Your task to perform on an android device: Search for Italian restaurants on Maps Image 0: 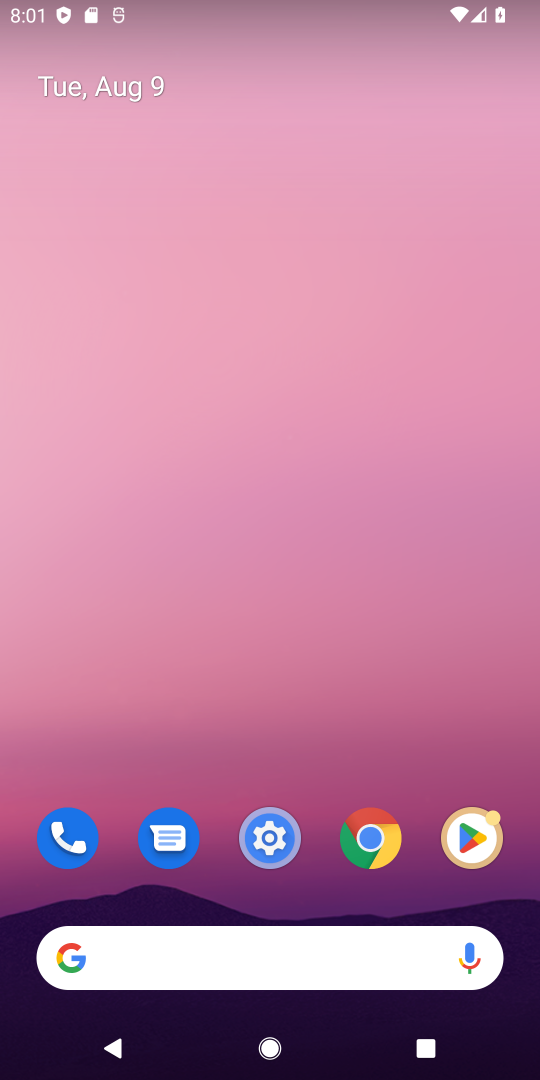
Step 0: drag from (331, 899) to (285, 85)
Your task to perform on an android device: Search for Italian restaurants on Maps Image 1: 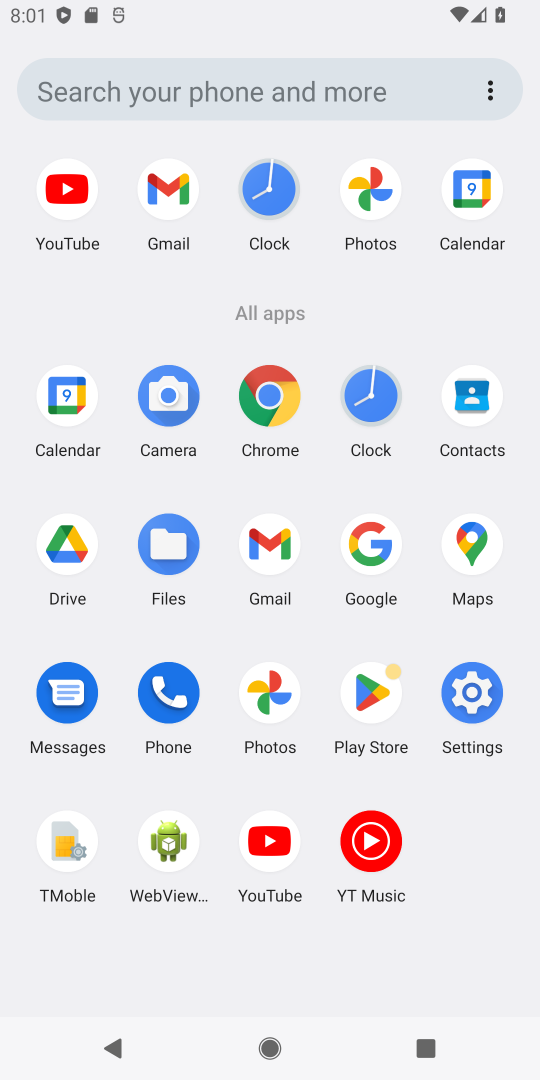
Step 1: click (470, 555)
Your task to perform on an android device: Search for Italian restaurants on Maps Image 2: 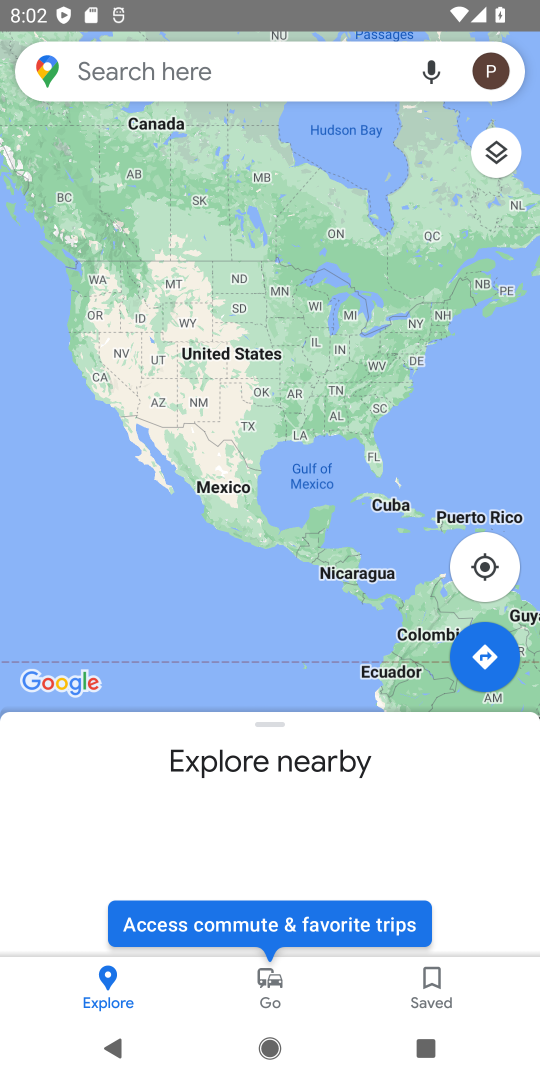
Step 2: click (214, 75)
Your task to perform on an android device: Search for Italian restaurants on Maps Image 3: 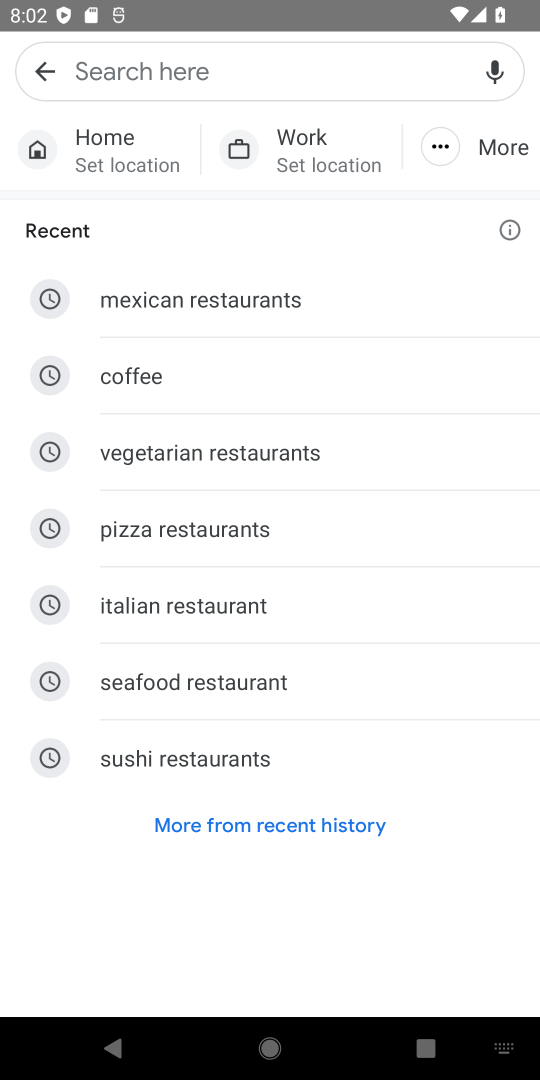
Step 3: click (273, 602)
Your task to perform on an android device: Search for Italian restaurants on Maps Image 4: 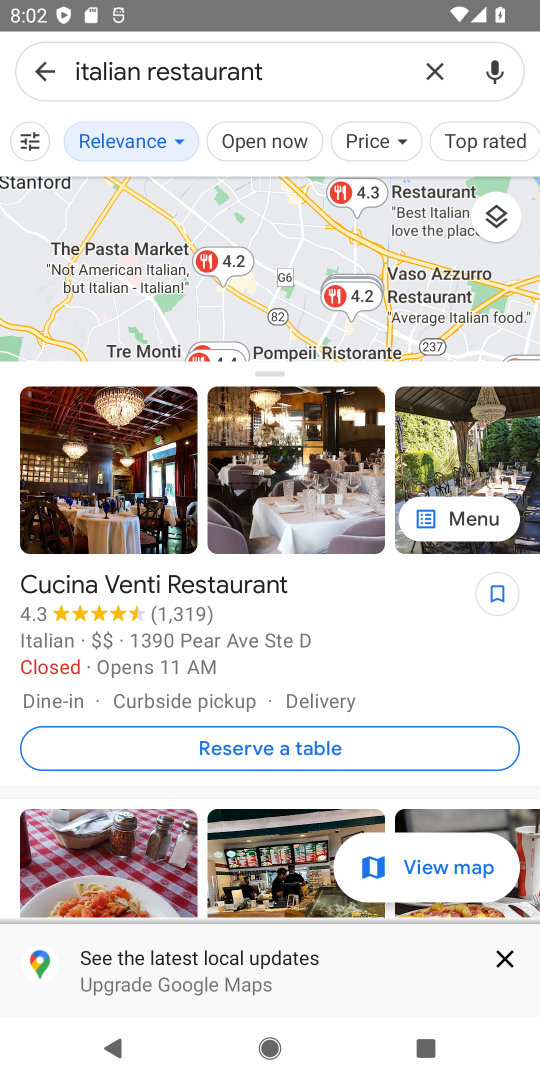
Step 4: task complete